Your task to perform on an android device: Go to privacy settings Image 0: 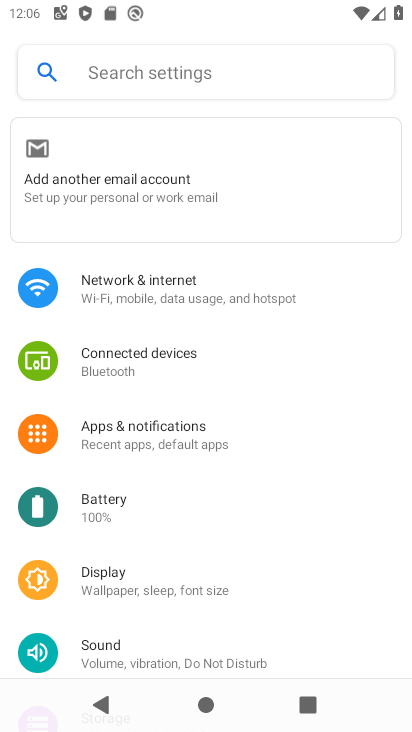
Step 0: drag from (157, 561) to (85, 156)
Your task to perform on an android device: Go to privacy settings Image 1: 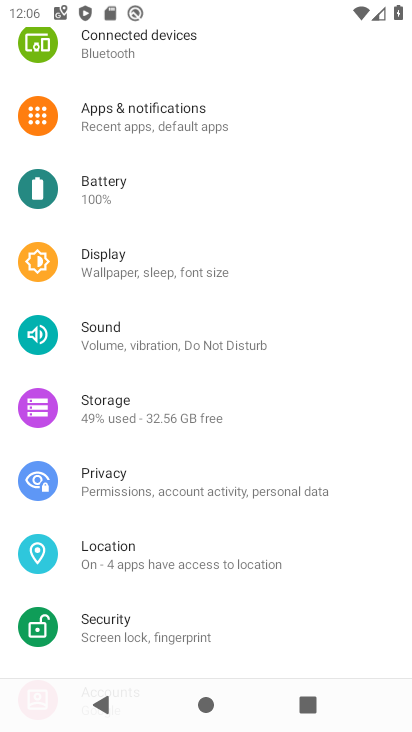
Step 1: drag from (169, 444) to (140, 187)
Your task to perform on an android device: Go to privacy settings Image 2: 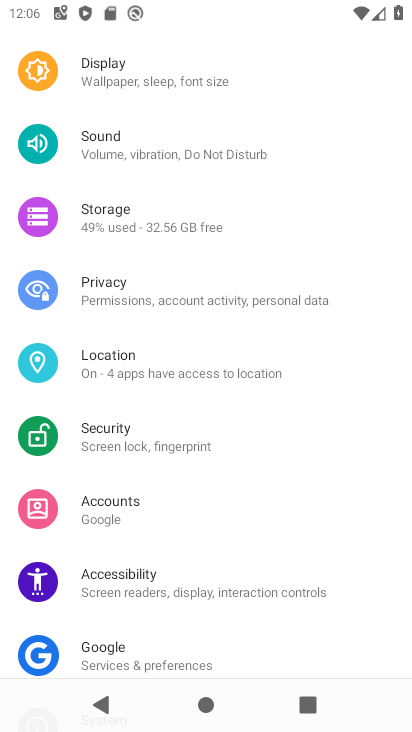
Step 2: click (111, 272)
Your task to perform on an android device: Go to privacy settings Image 3: 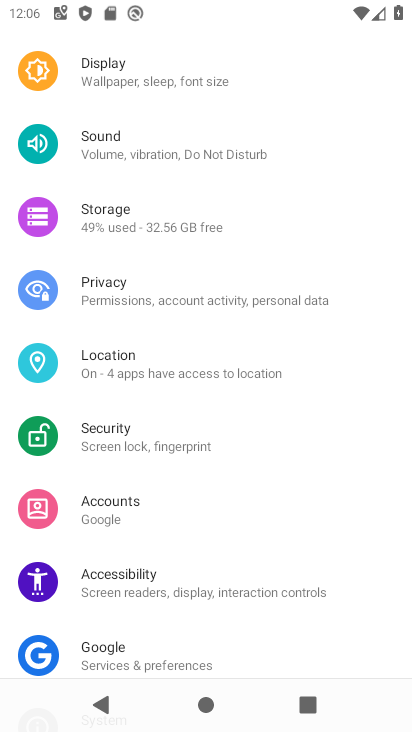
Step 3: click (113, 289)
Your task to perform on an android device: Go to privacy settings Image 4: 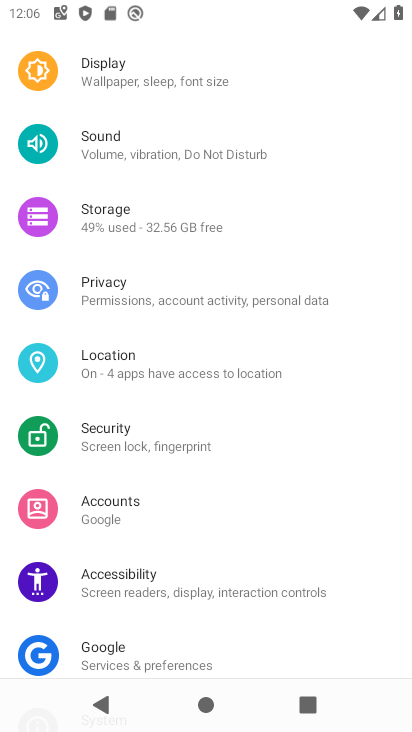
Step 4: click (113, 289)
Your task to perform on an android device: Go to privacy settings Image 5: 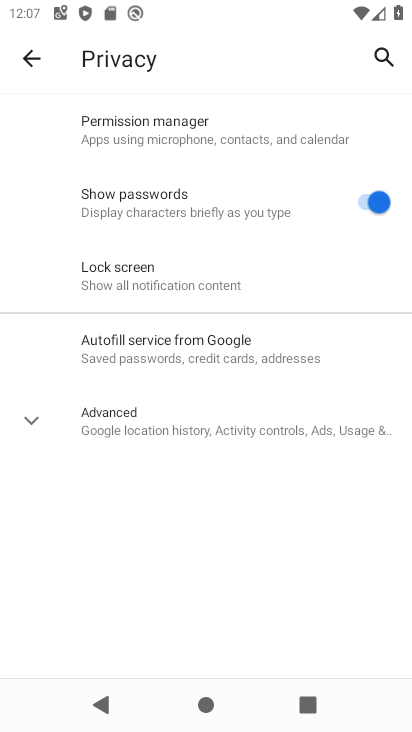
Step 5: task complete